Your task to perform on an android device: toggle translation in the chrome app Image 0: 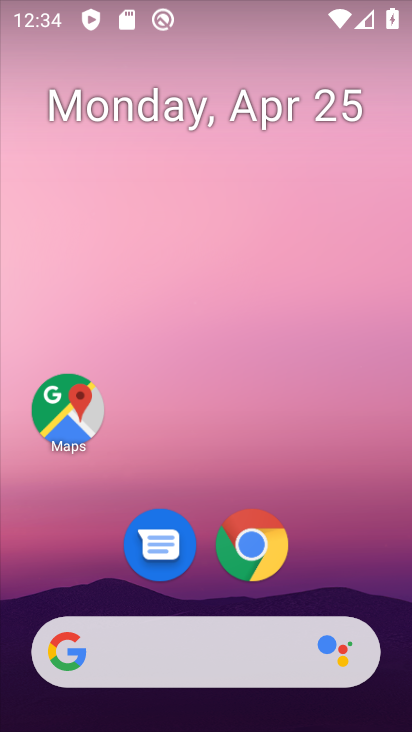
Step 0: click (247, 560)
Your task to perform on an android device: toggle translation in the chrome app Image 1: 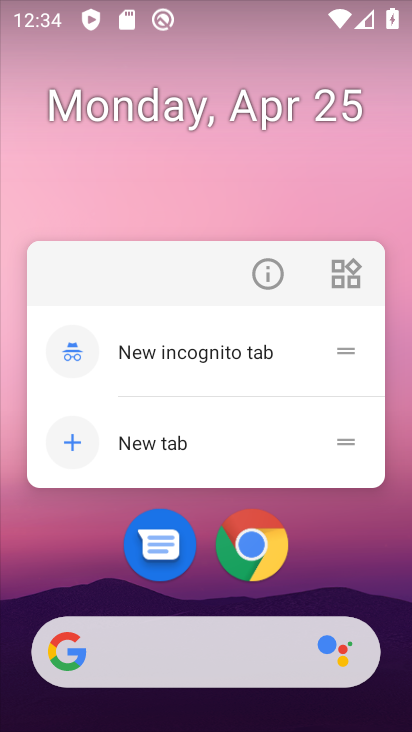
Step 1: click (255, 544)
Your task to perform on an android device: toggle translation in the chrome app Image 2: 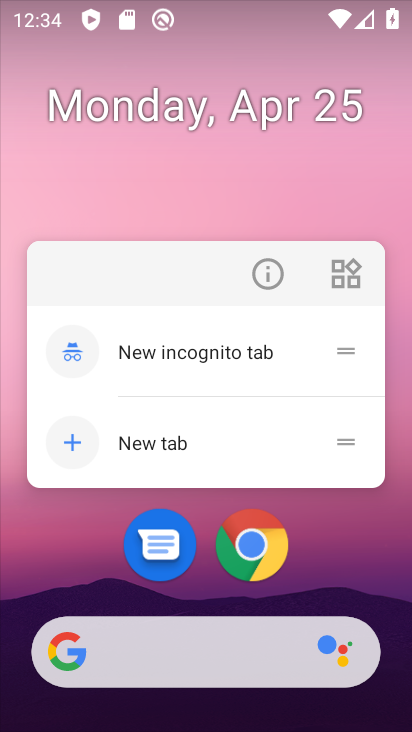
Step 2: click (260, 539)
Your task to perform on an android device: toggle translation in the chrome app Image 3: 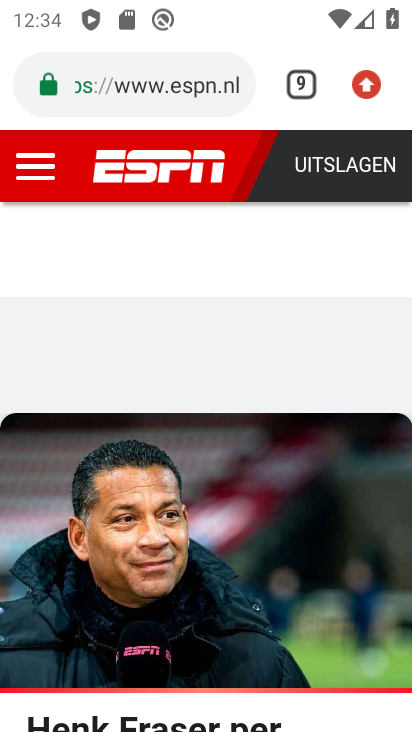
Step 3: drag from (366, 82) to (93, 593)
Your task to perform on an android device: toggle translation in the chrome app Image 4: 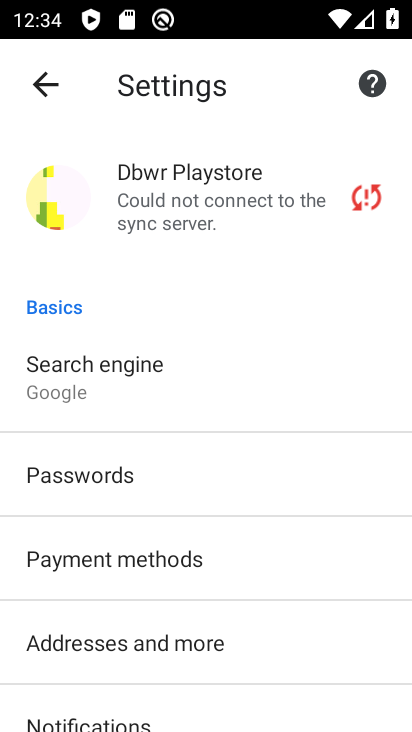
Step 4: drag from (212, 689) to (149, 234)
Your task to perform on an android device: toggle translation in the chrome app Image 5: 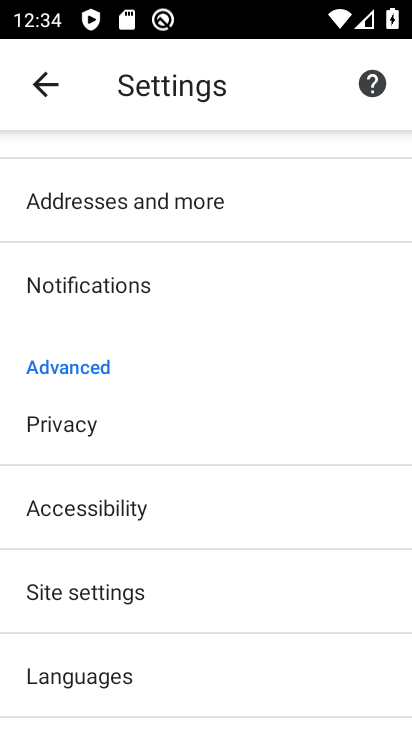
Step 5: click (119, 680)
Your task to perform on an android device: toggle translation in the chrome app Image 6: 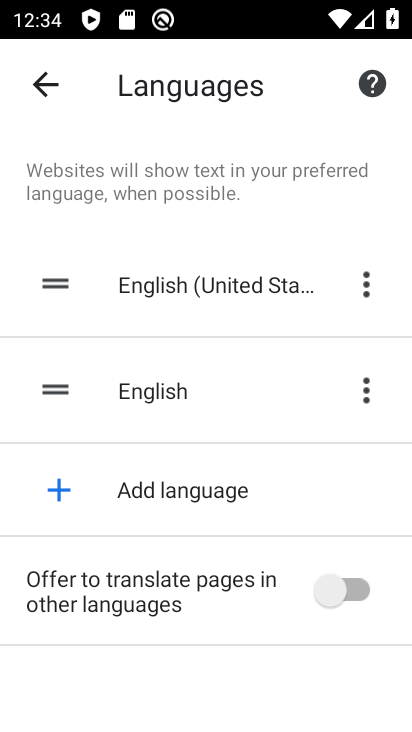
Step 6: click (348, 594)
Your task to perform on an android device: toggle translation in the chrome app Image 7: 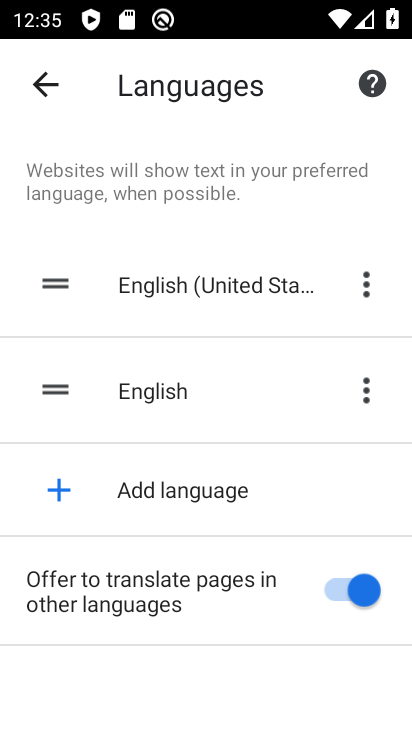
Step 7: task complete